Your task to perform on an android device: toggle improve location accuracy Image 0: 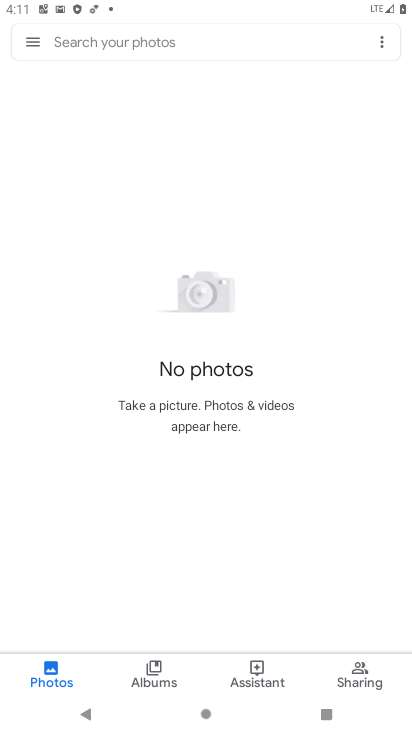
Step 0: press home button
Your task to perform on an android device: toggle improve location accuracy Image 1: 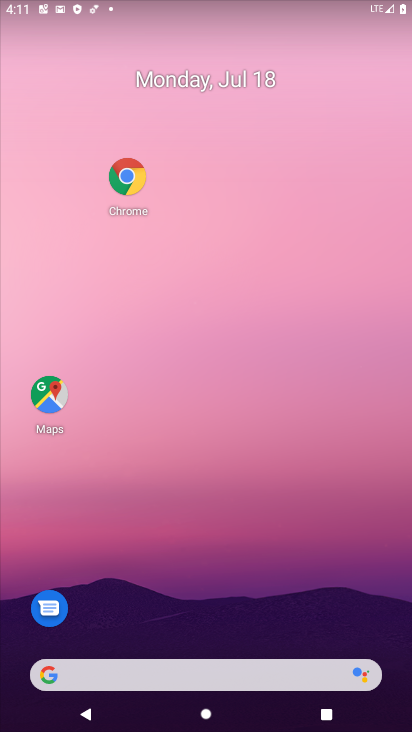
Step 1: drag from (215, 705) to (337, 160)
Your task to perform on an android device: toggle improve location accuracy Image 2: 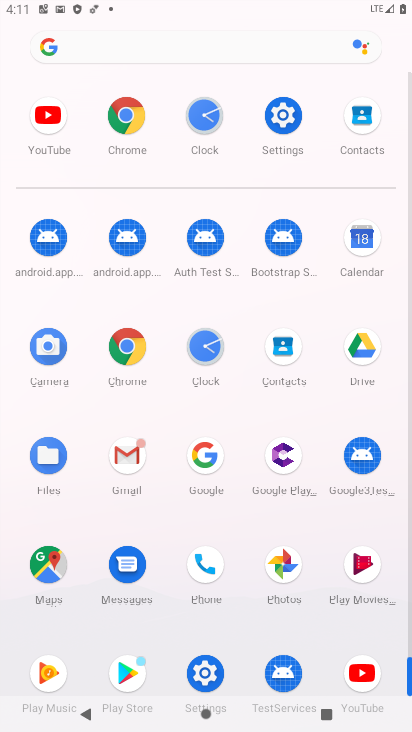
Step 2: click (284, 144)
Your task to perform on an android device: toggle improve location accuracy Image 3: 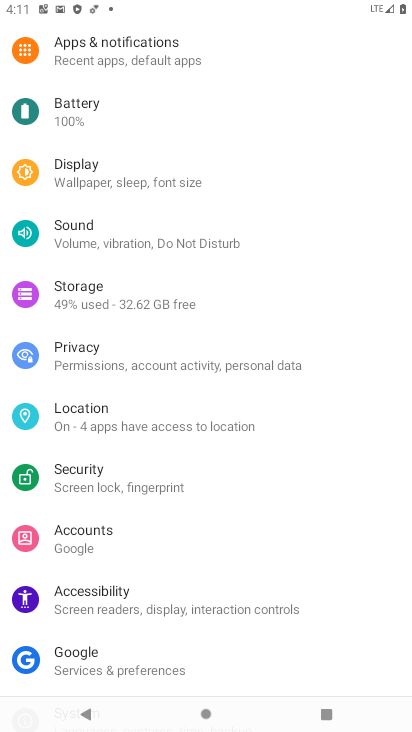
Step 3: drag from (105, 184) to (146, 260)
Your task to perform on an android device: toggle improve location accuracy Image 4: 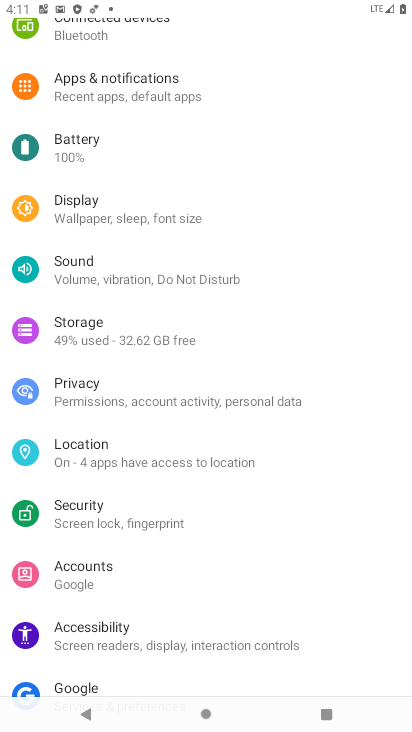
Step 4: click (145, 463)
Your task to perform on an android device: toggle improve location accuracy Image 5: 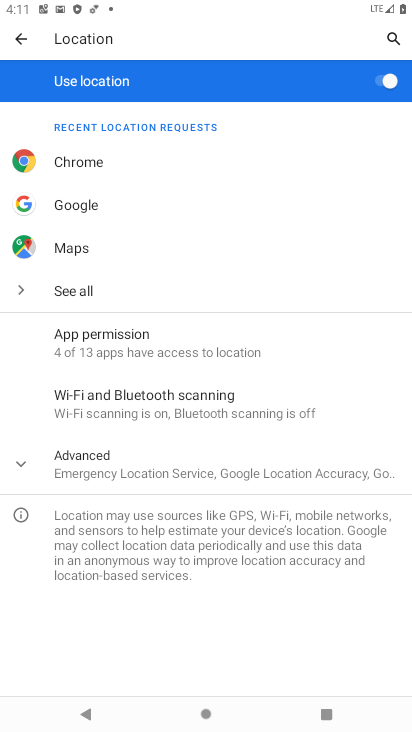
Step 5: click (131, 479)
Your task to perform on an android device: toggle improve location accuracy Image 6: 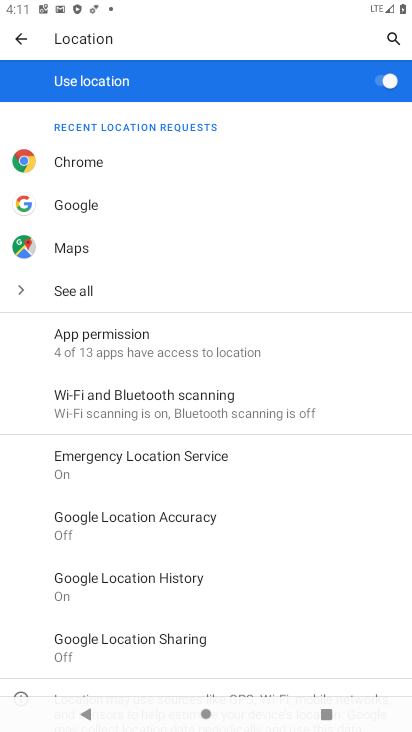
Step 6: click (139, 520)
Your task to perform on an android device: toggle improve location accuracy Image 7: 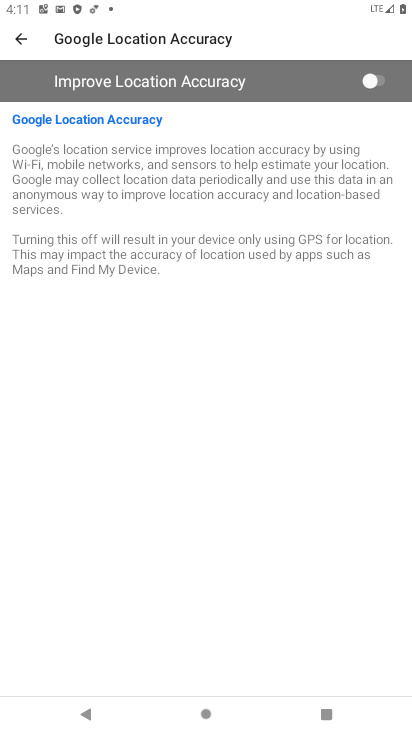
Step 7: click (346, 87)
Your task to perform on an android device: toggle improve location accuracy Image 8: 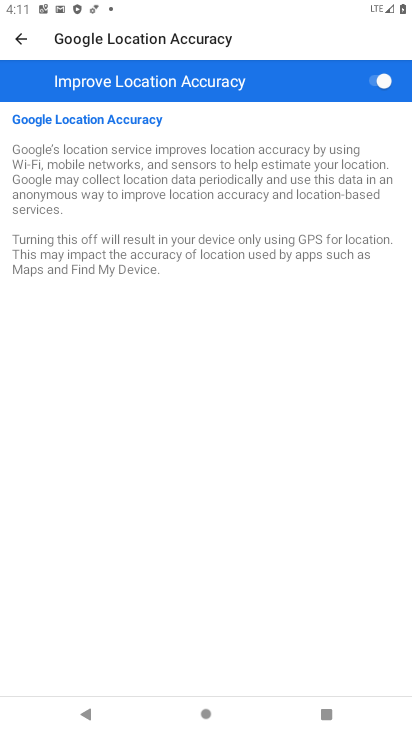
Step 8: task complete